Your task to perform on an android device: Open notification settings Image 0: 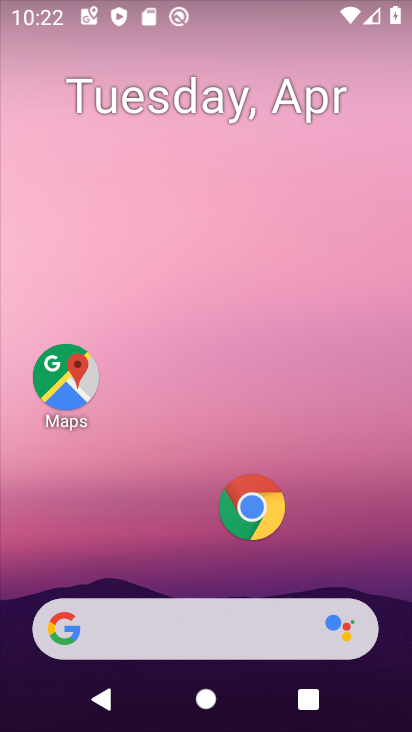
Step 0: drag from (89, 659) to (317, 272)
Your task to perform on an android device: Open notification settings Image 1: 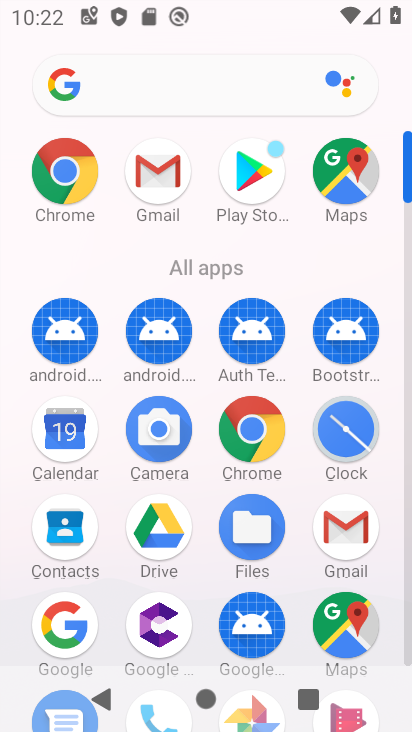
Step 1: drag from (32, 590) to (288, 249)
Your task to perform on an android device: Open notification settings Image 2: 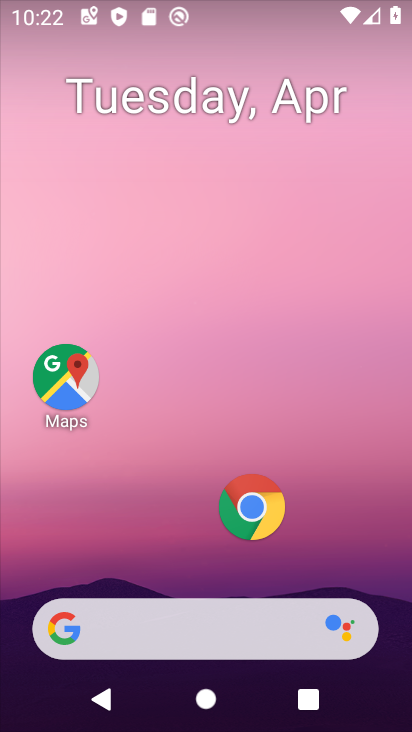
Step 2: drag from (55, 577) to (321, 216)
Your task to perform on an android device: Open notification settings Image 3: 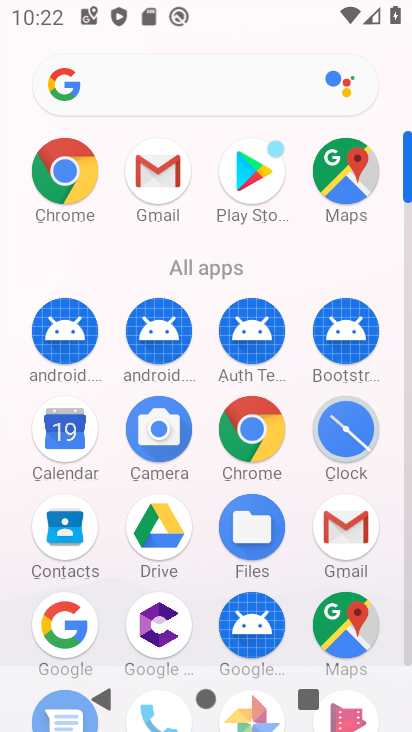
Step 3: drag from (104, 600) to (272, 316)
Your task to perform on an android device: Open notification settings Image 4: 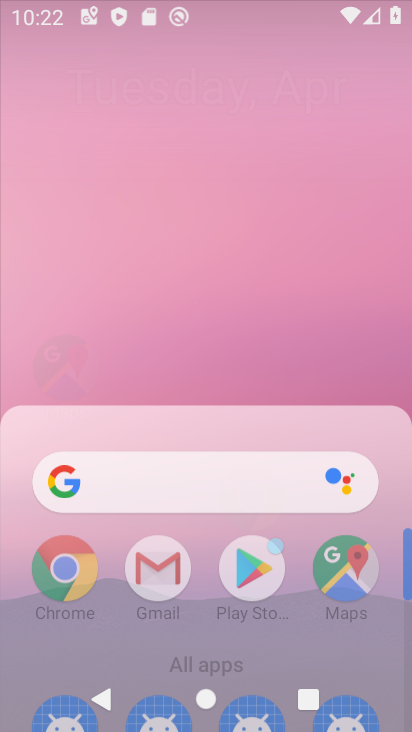
Step 4: drag from (106, 626) to (351, 149)
Your task to perform on an android device: Open notification settings Image 5: 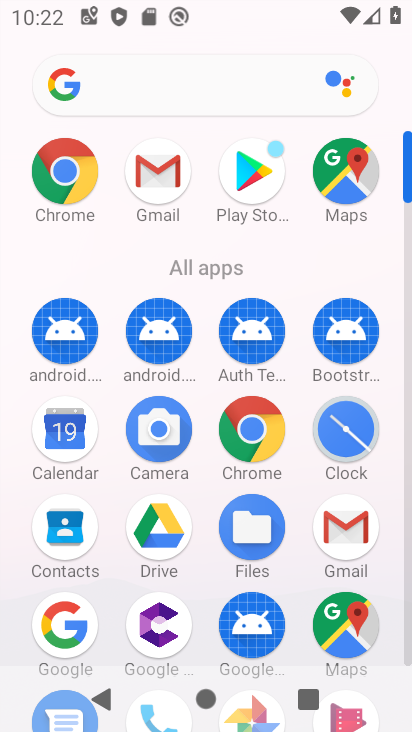
Step 5: drag from (61, 648) to (197, 238)
Your task to perform on an android device: Open notification settings Image 6: 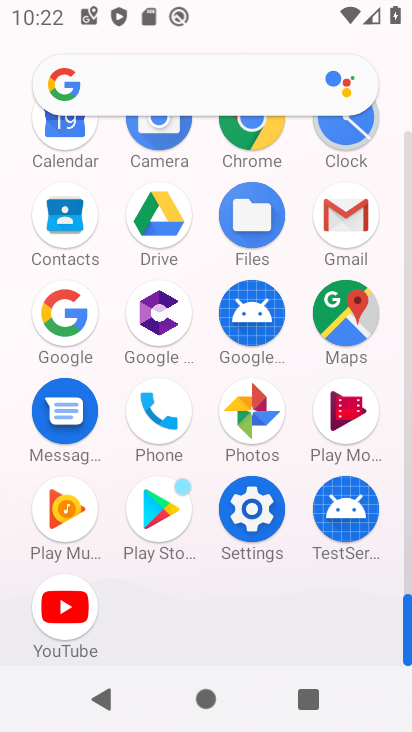
Step 6: click (267, 525)
Your task to perform on an android device: Open notification settings Image 7: 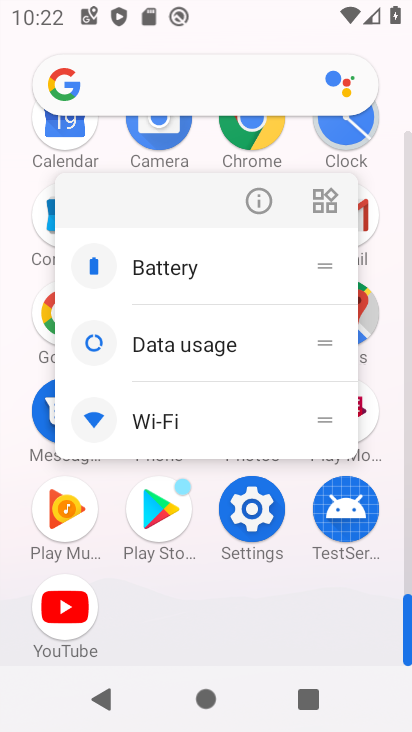
Step 7: click (246, 502)
Your task to perform on an android device: Open notification settings Image 8: 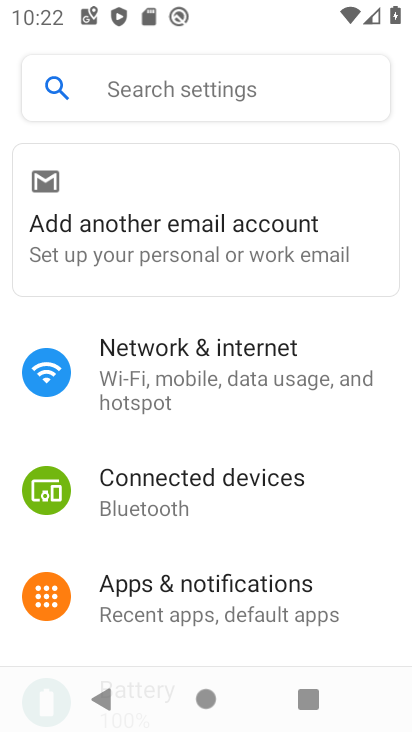
Step 8: click (204, 598)
Your task to perform on an android device: Open notification settings Image 9: 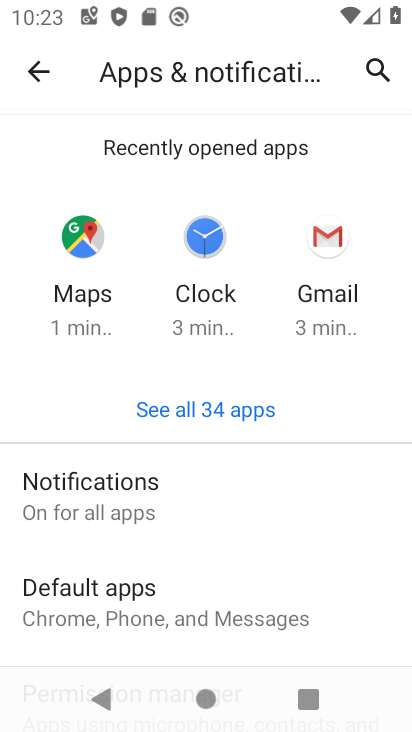
Step 9: task complete